Your task to perform on an android device: check google app version Image 0: 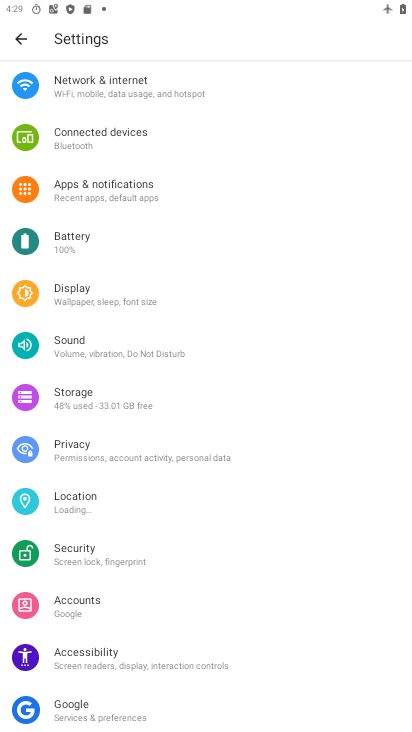
Step 0: press home button
Your task to perform on an android device: check google app version Image 1: 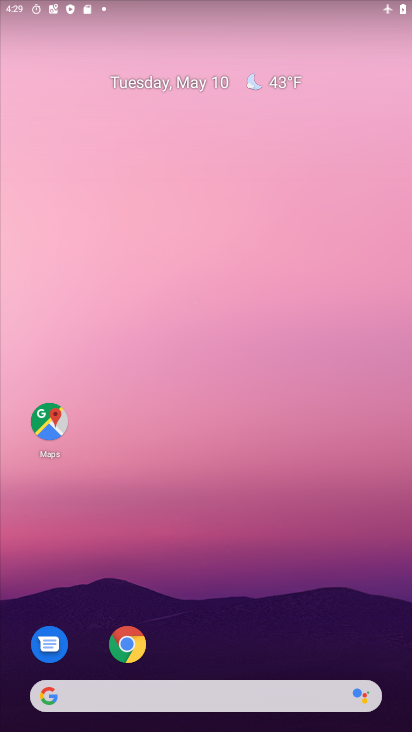
Step 1: drag from (199, 674) to (213, 280)
Your task to perform on an android device: check google app version Image 2: 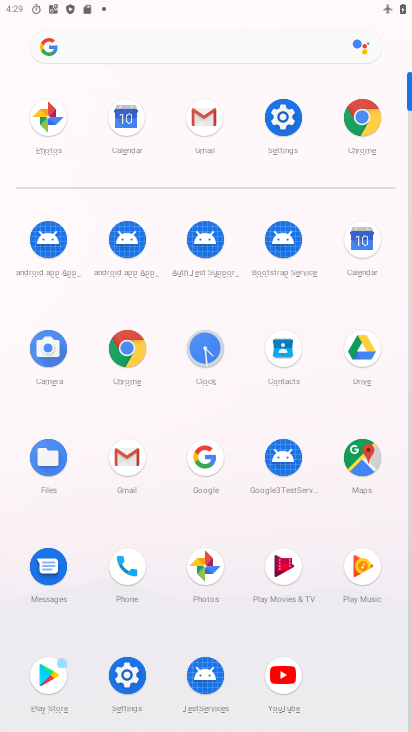
Step 2: click (208, 455)
Your task to perform on an android device: check google app version Image 3: 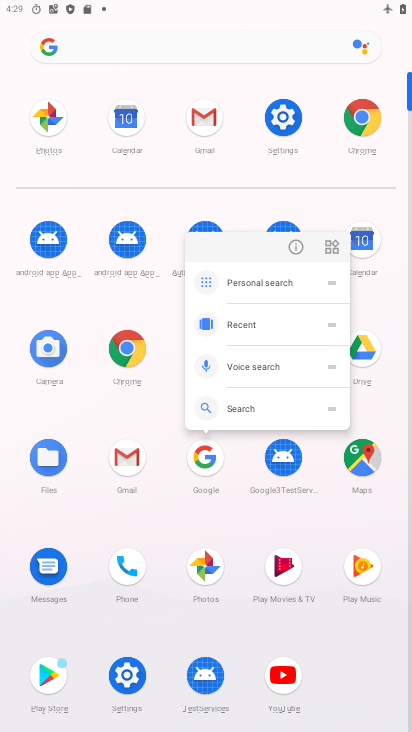
Step 3: click (299, 247)
Your task to perform on an android device: check google app version Image 4: 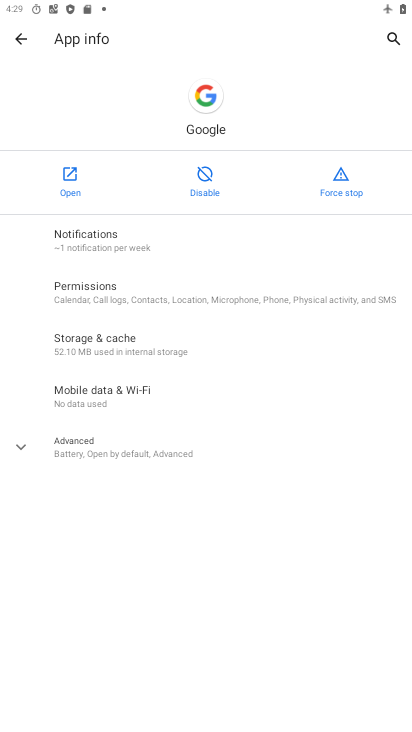
Step 4: click (123, 447)
Your task to perform on an android device: check google app version Image 5: 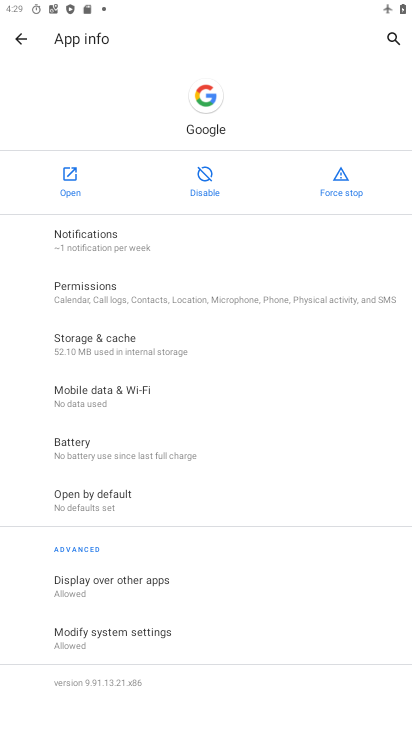
Step 5: task complete